Your task to perform on an android device: add a contact Image 0: 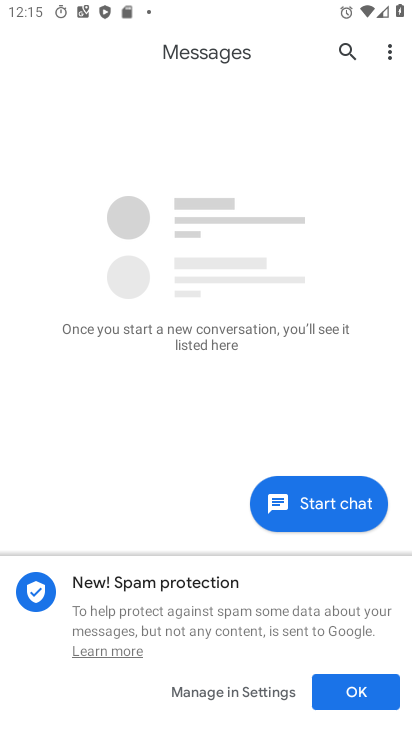
Step 0: press home button
Your task to perform on an android device: add a contact Image 1: 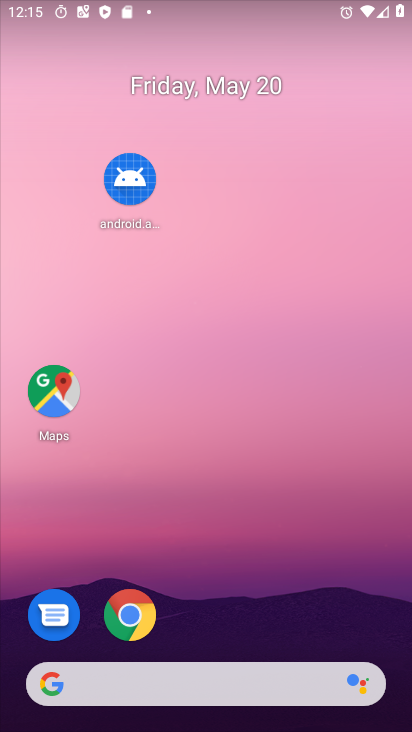
Step 1: drag from (314, 633) to (175, 75)
Your task to perform on an android device: add a contact Image 2: 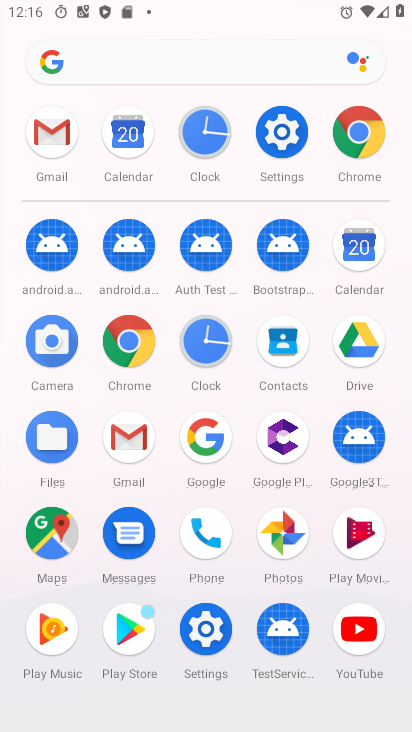
Step 2: click (209, 345)
Your task to perform on an android device: add a contact Image 3: 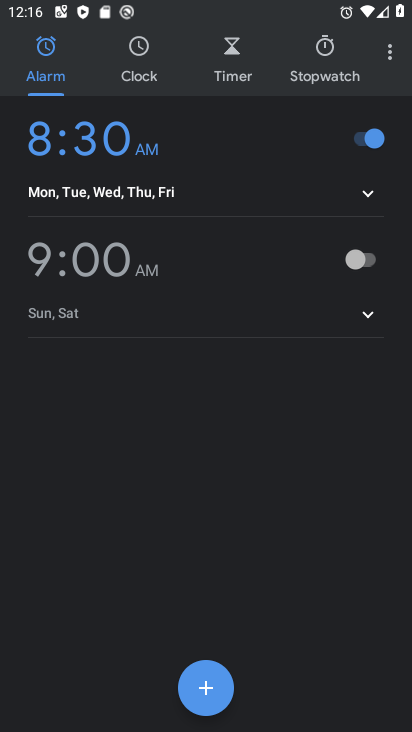
Step 3: press home button
Your task to perform on an android device: add a contact Image 4: 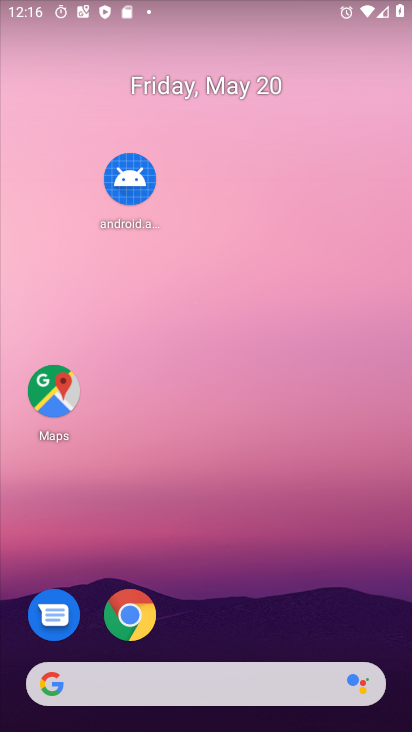
Step 4: drag from (367, 552) to (285, 1)
Your task to perform on an android device: add a contact Image 5: 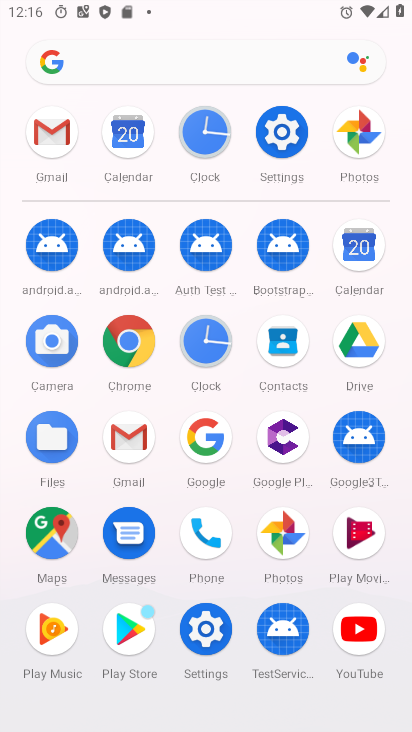
Step 5: click (288, 334)
Your task to perform on an android device: add a contact Image 6: 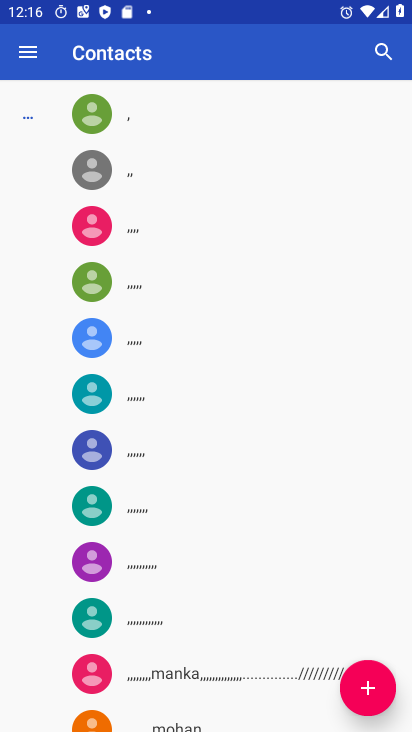
Step 6: click (369, 693)
Your task to perform on an android device: add a contact Image 7: 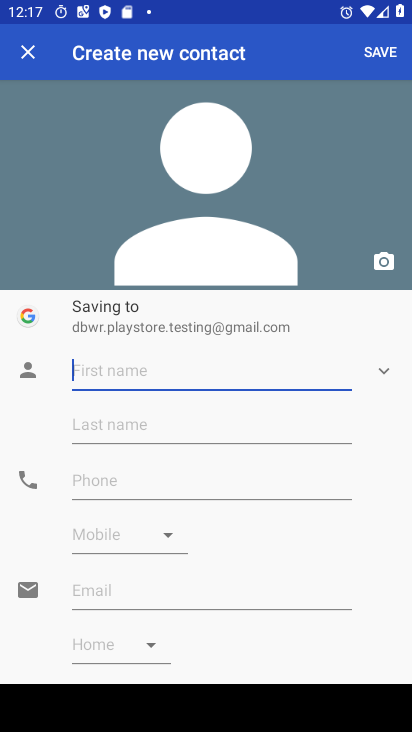
Step 7: click (162, 475)
Your task to perform on an android device: add a contact Image 8: 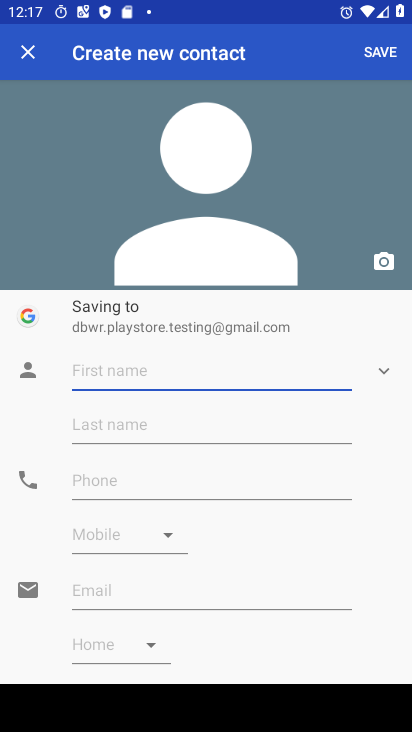
Step 8: type "zzzzz"
Your task to perform on an android device: add a contact Image 9: 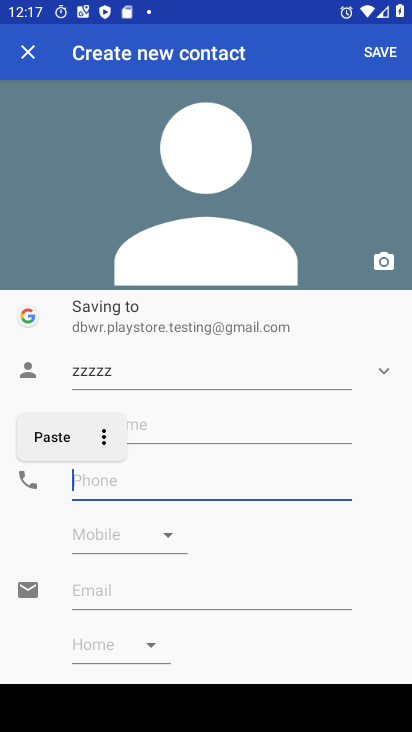
Step 9: type "3434343434"
Your task to perform on an android device: add a contact Image 10: 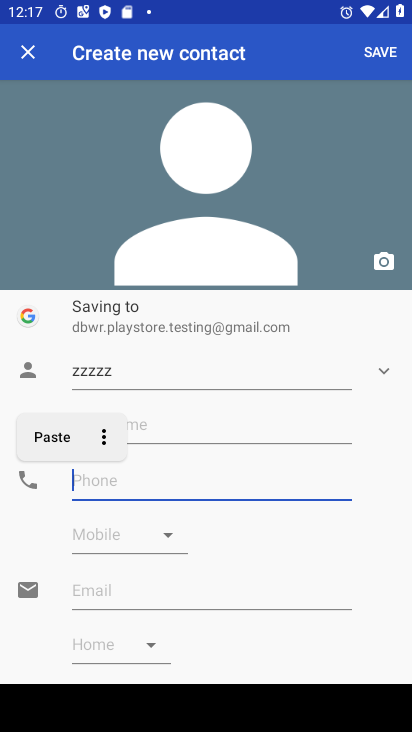
Step 10: click (376, 57)
Your task to perform on an android device: add a contact Image 11: 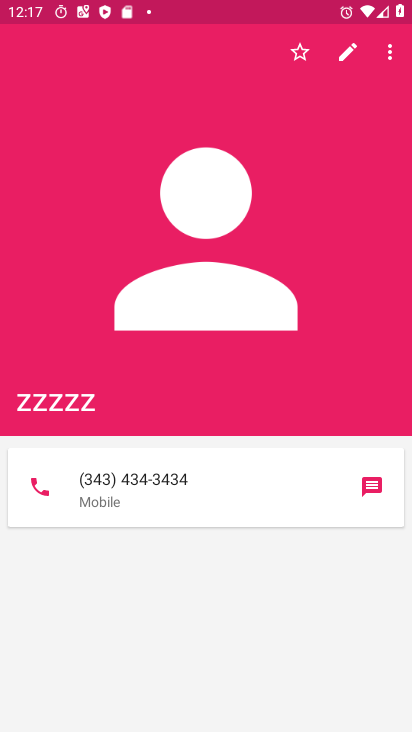
Step 11: task complete